Your task to perform on an android device: Open eBay Image 0: 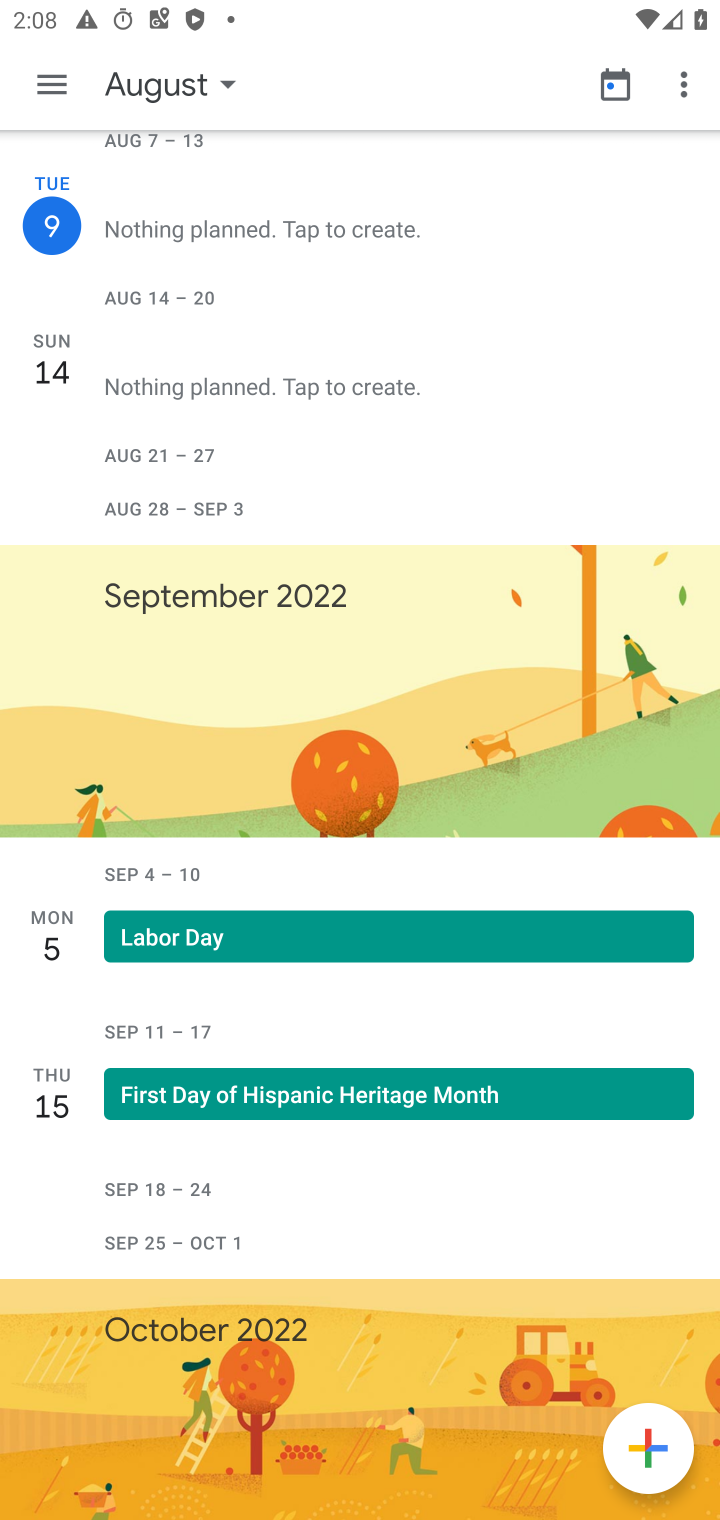
Step 0: press home button
Your task to perform on an android device: Open eBay Image 1: 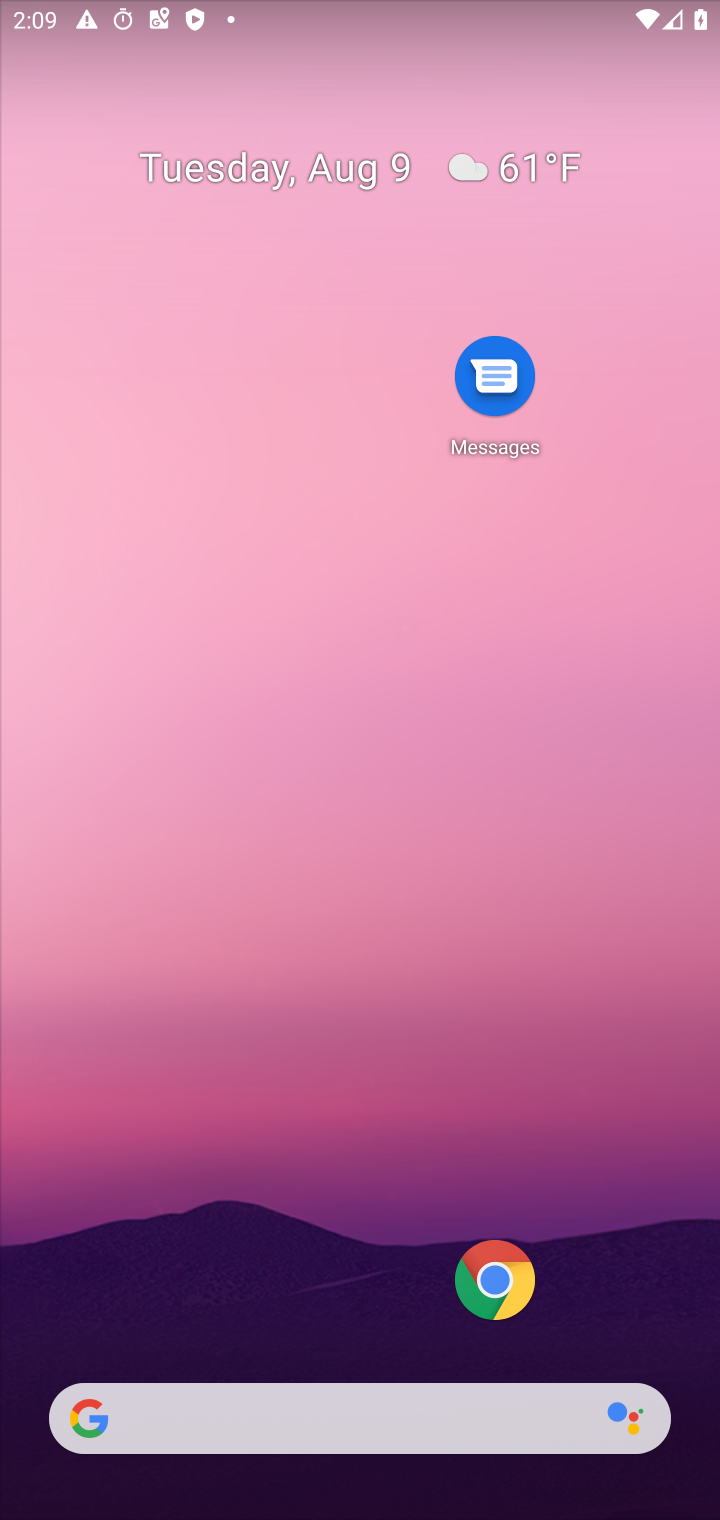
Step 1: click (501, 1276)
Your task to perform on an android device: Open eBay Image 2: 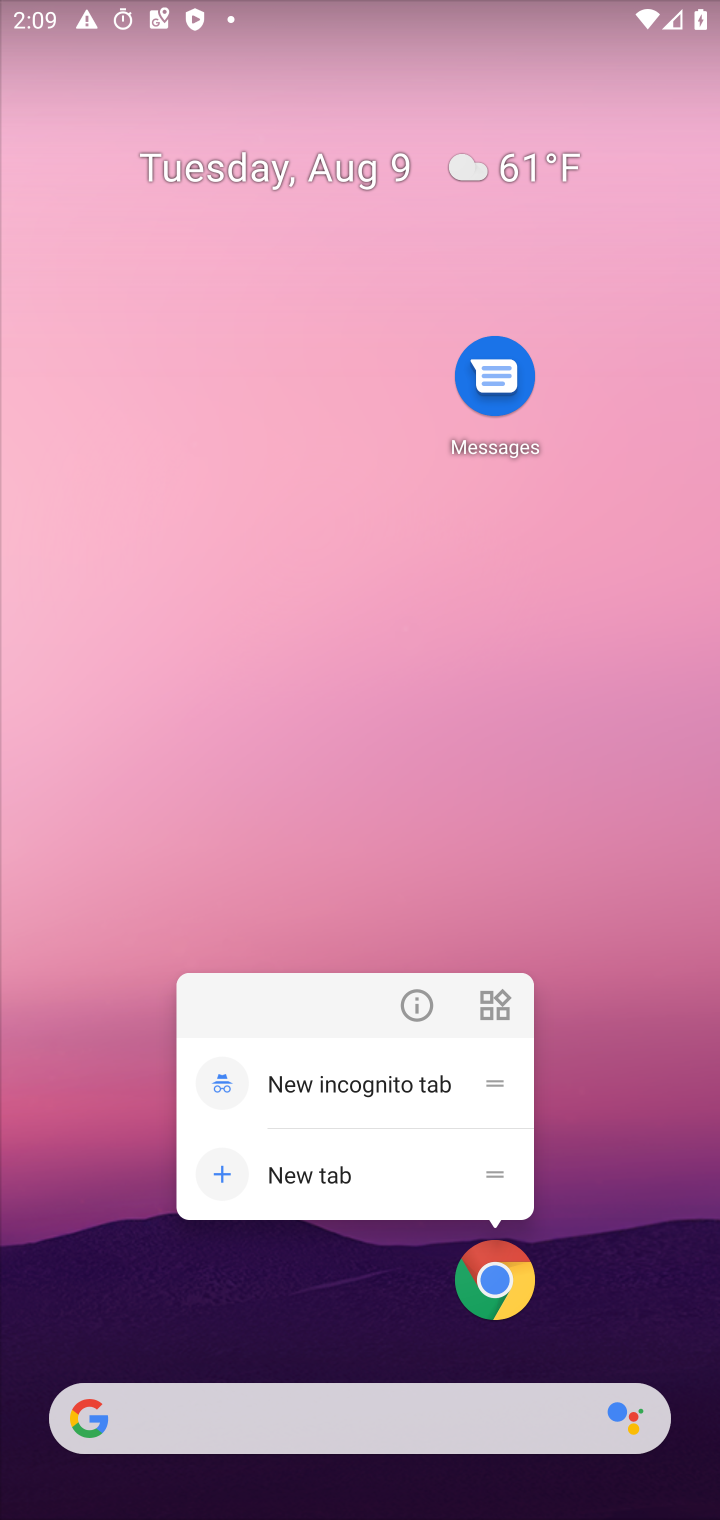
Step 2: click (499, 1274)
Your task to perform on an android device: Open eBay Image 3: 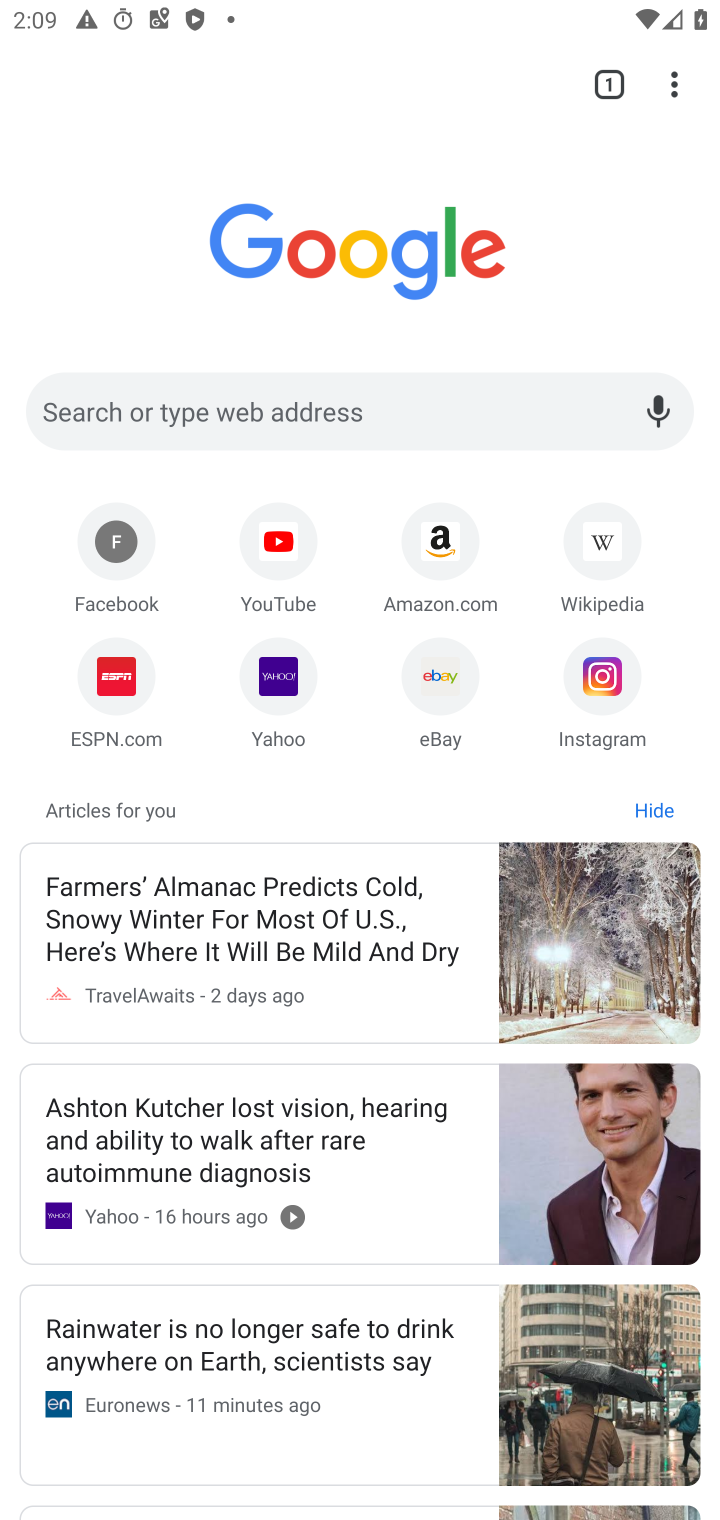
Step 3: click (432, 684)
Your task to perform on an android device: Open eBay Image 4: 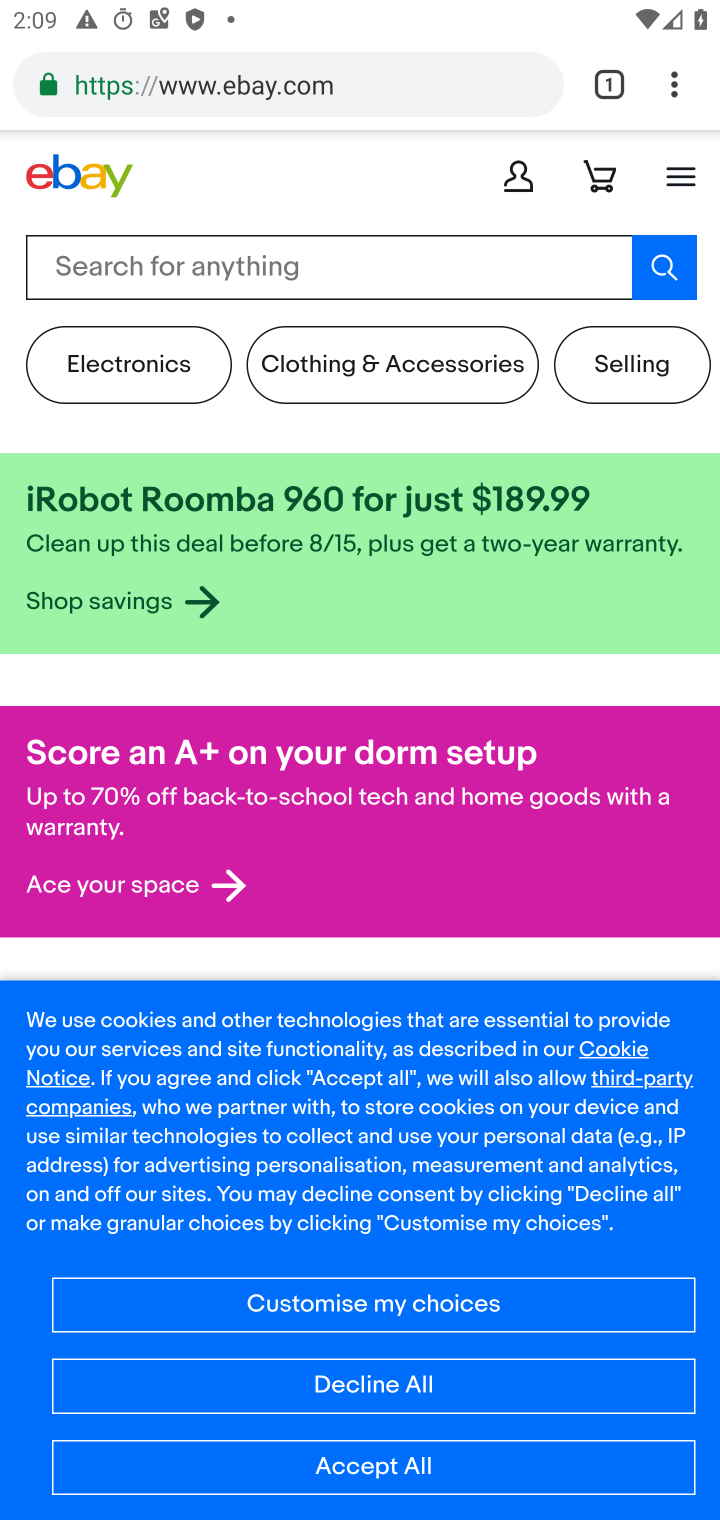
Step 4: click (377, 1474)
Your task to perform on an android device: Open eBay Image 5: 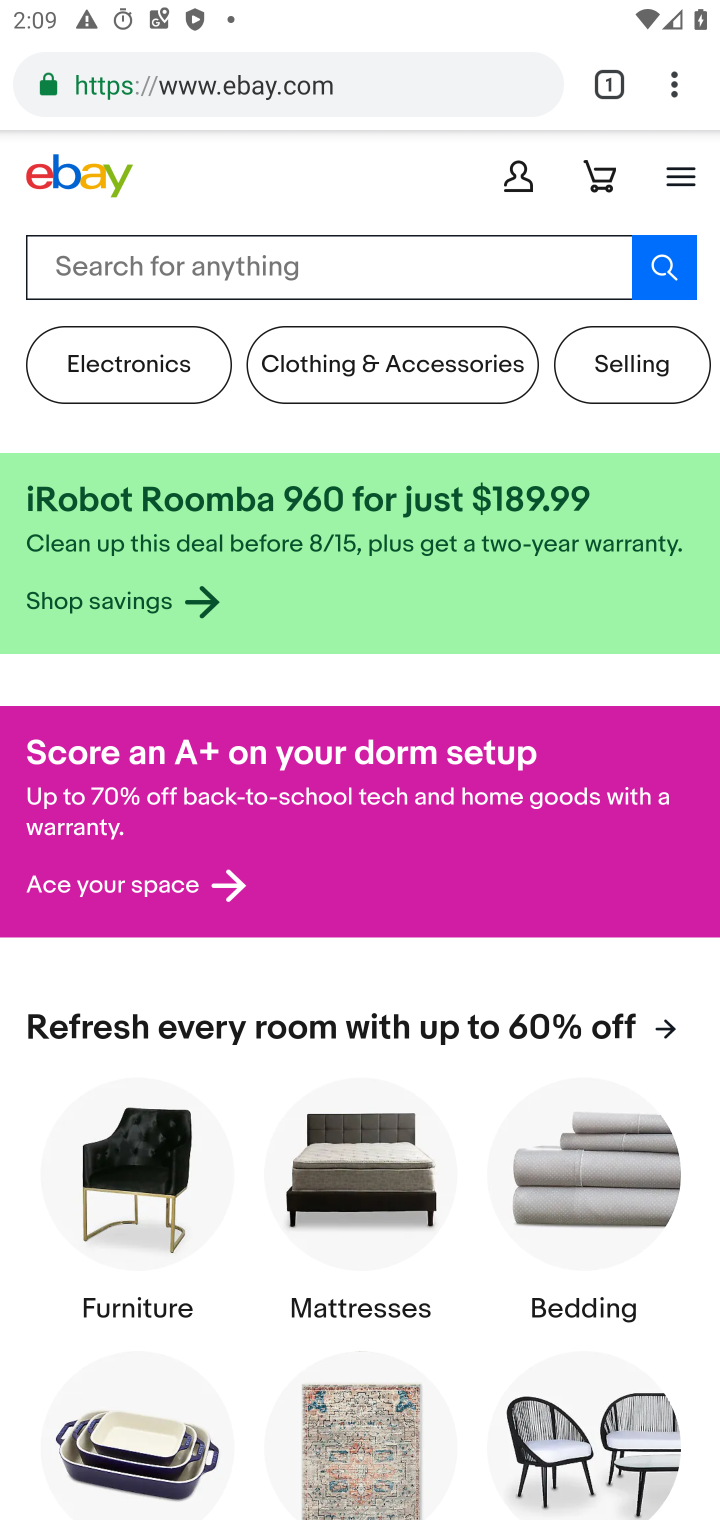
Step 5: task complete